Your task to perform on an android device: toggle priority inbox in the gmail app Image 0: 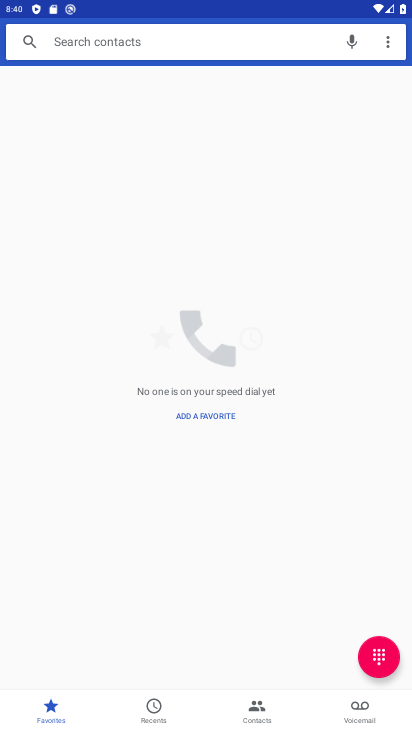
Step 0: press home button
Your task to perform on an android device: toggle priority inbox in the gmail app Image 1: 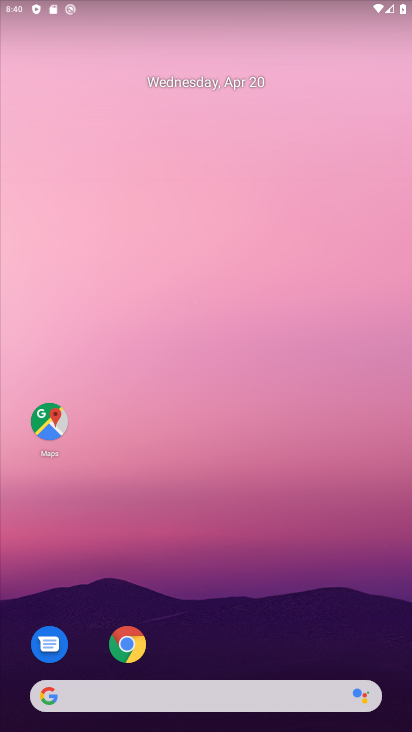
Step 1: drag from (163, 684) to (217, 341)
Your task to perform on an android device: toggle priority inbox in the gmail app Image 2: 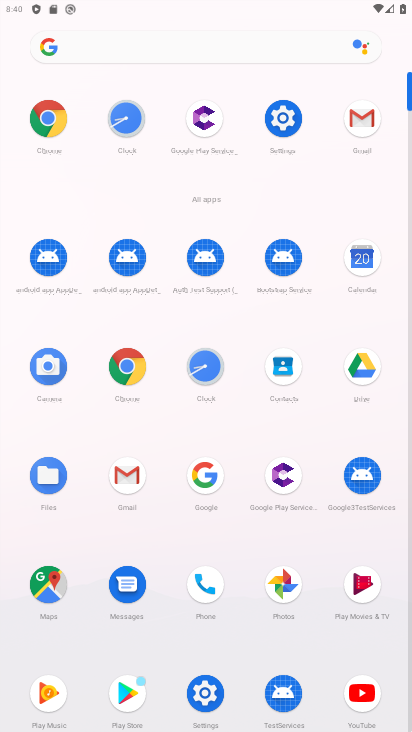
Step 2: click (128, 480)
Your task to perform on an android device: toggle priority inbox in the gmail app Image 3: 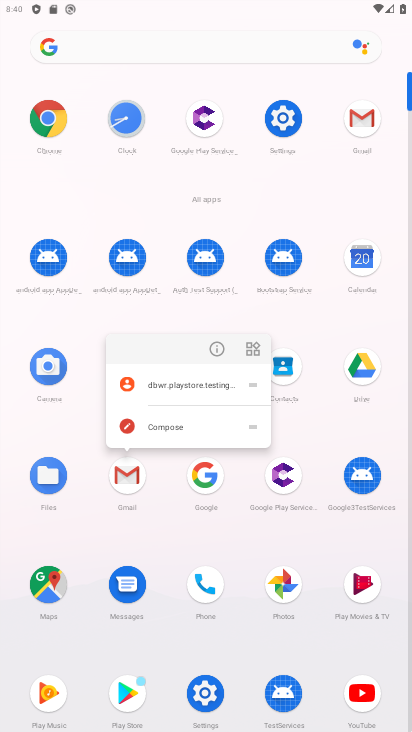
Step 3: click (128, 480)
Your task to perform on an android device: toggle priority inbox in the gmail app Image 4: 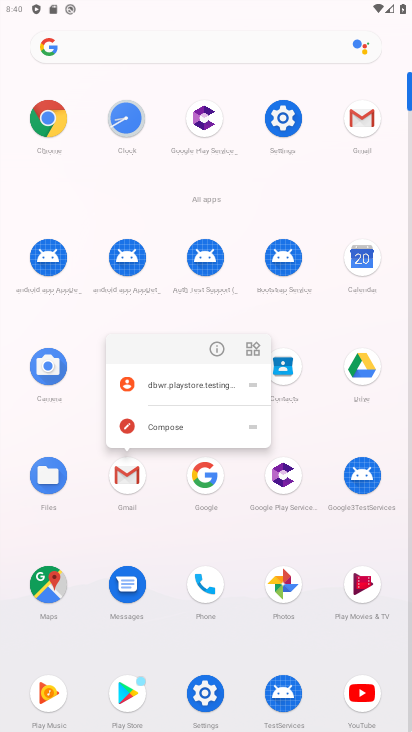
Step 4: click (130, 474)
Your task to perform on an android device: toggle priority inbox in the gmail app Image 5: 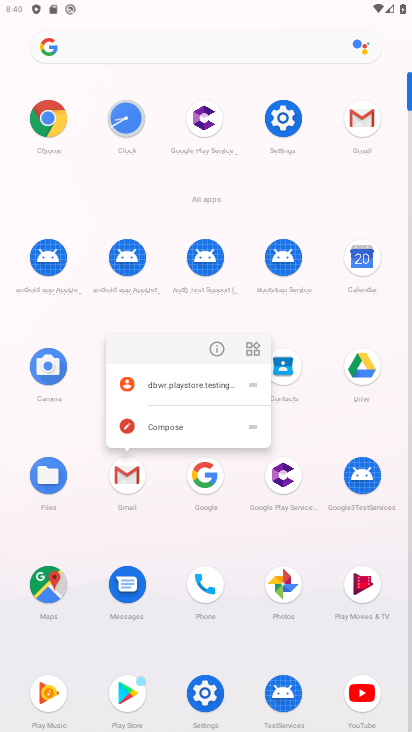
Step 5: click (130, 474)
Your task to perform on an android device: toggle priority inbox in the gmail app Image 6: 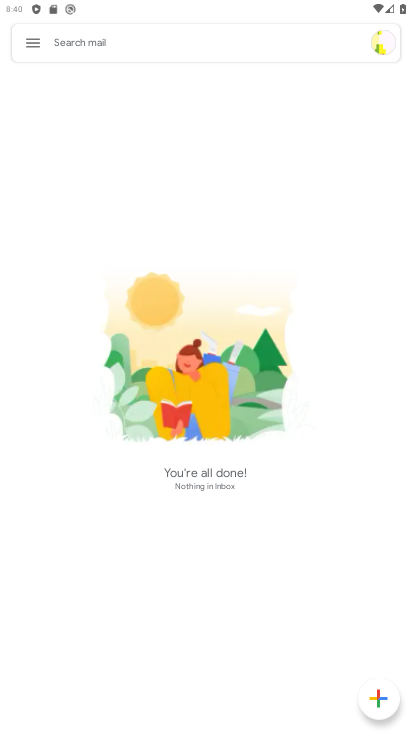
Step 6: click (30, 44)
Your task to perform on an android device: toggle priority inbox in the gmail app Image 7: 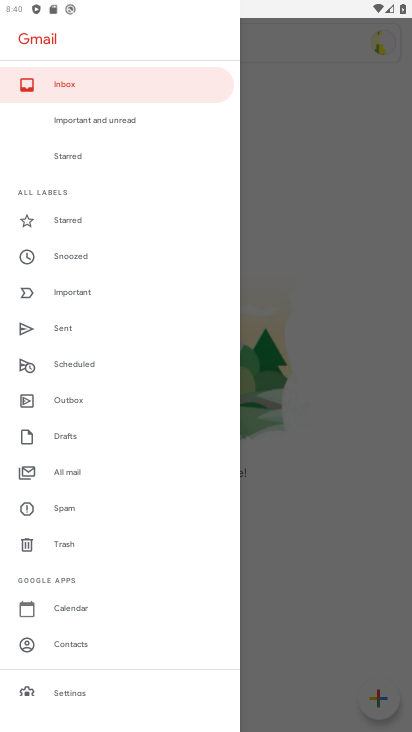
Step 7: click (68, 694)
Your task to perform on an android device: toggle priority inbox in the gmail app Image 8: 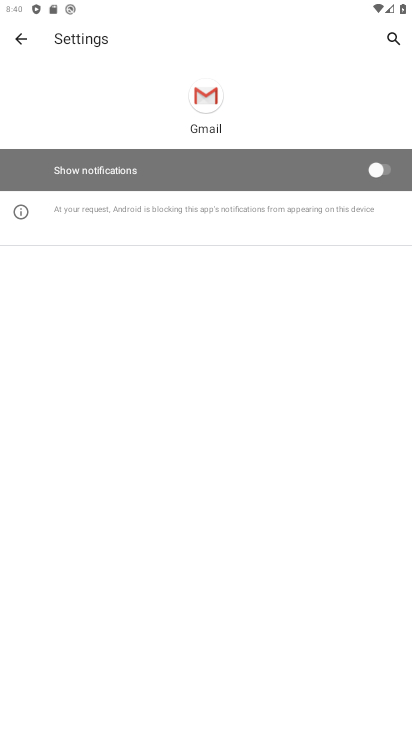
Step 8: click (15, 36)
Your task to perform on an android device: toggle priority inbox in the gmail app Image 9: 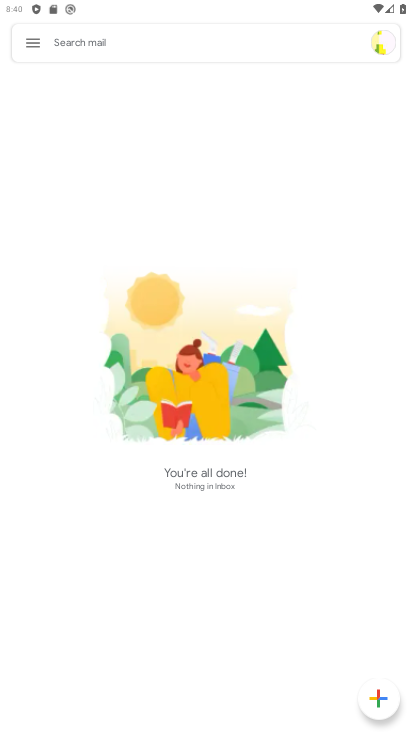
Step 9: click (31, 44)
Your task to perform on an android device: toggle priority inbox in the gmail app Image 10: 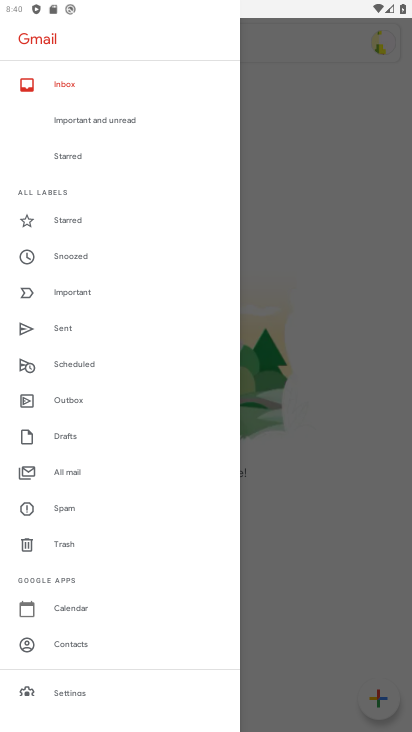
Step 10: click (73, 698)
Your task to perform on an android device: toggle priority inbox in the gmail app Image 11: 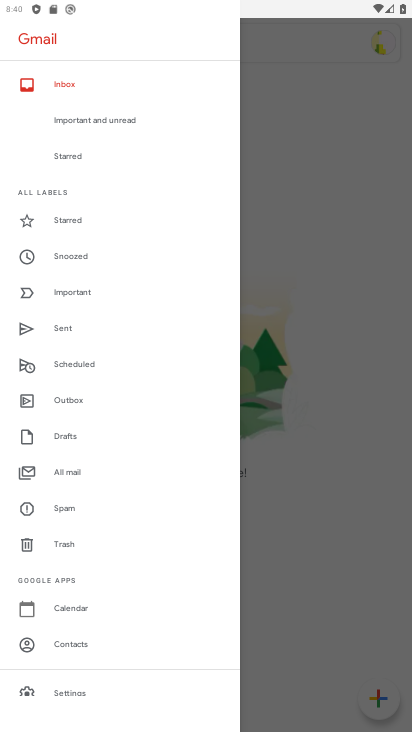
Step 11: click (72, 693)
Your task to perform on an android device: toggle priority inbox in the gmail app Image 12: 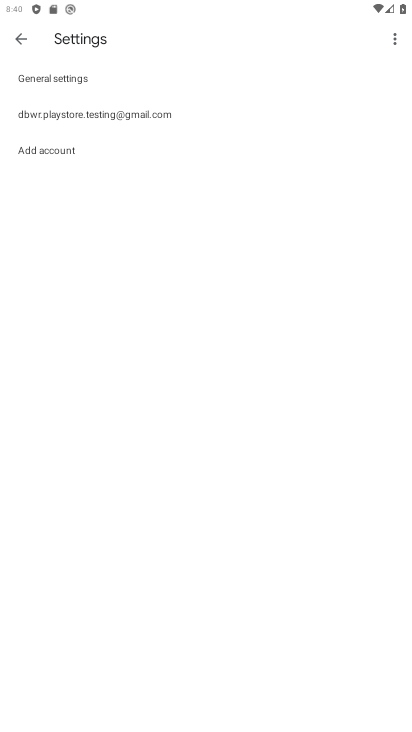
Step 12: click (100, 111)
Your task to perform on an android device: toggle priority inbox in the gmail app Image 13: 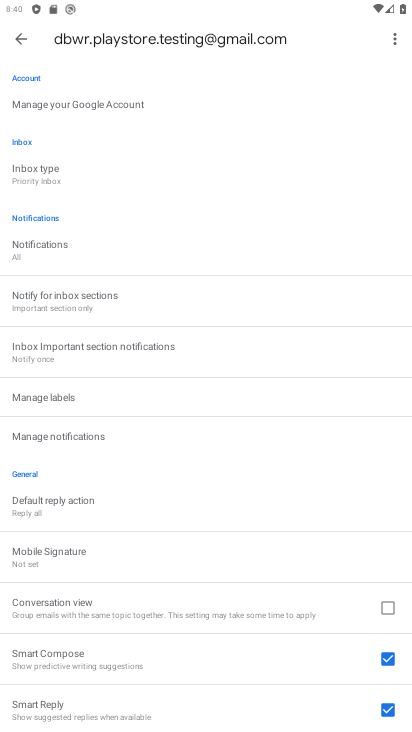
Step 13: click (42, 175)
Your task to perform on an android device: toggle priority inbox in the gmail app Image 14: 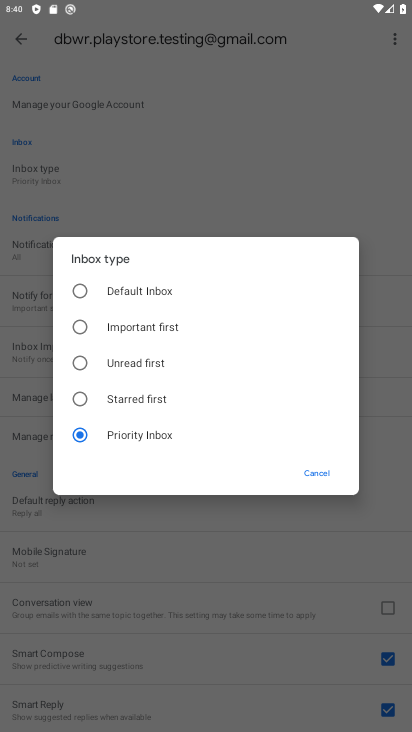
Step 14: click (82, 405)
Your task to perform on an android device: toggle priority inbox in the gmail app Image 15: 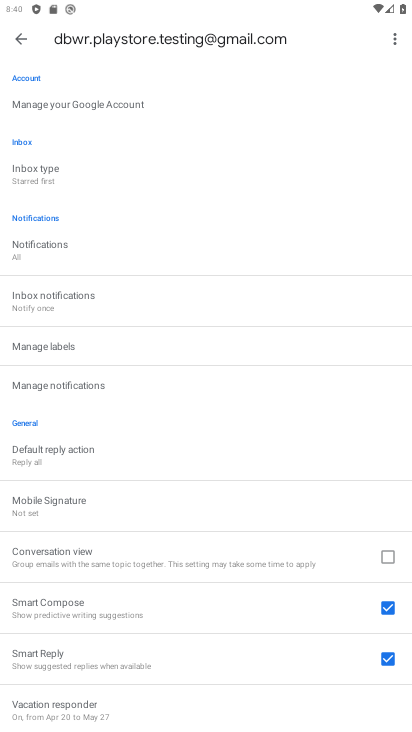
Step 15: task complete